Your task to perform on an android device: Open calendar and show me the second week of next month Image 0: 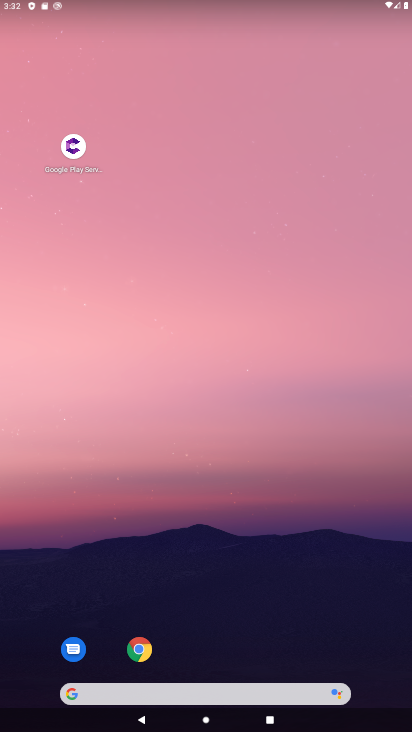
Step 0: drag from (376, 630) to (234, 3)
Your task to perform on an android device: Open calendar and show me the second week of next month Image 1: 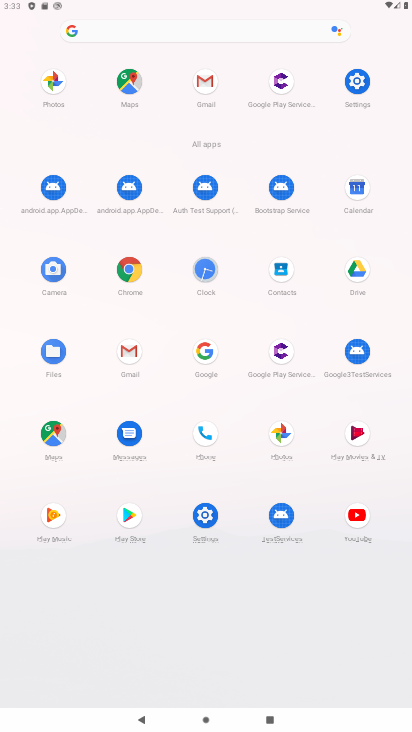
Step 1: click (362, 183)
Your task to perform on an android device: Open calendar and show me the second week of next month Image 2: 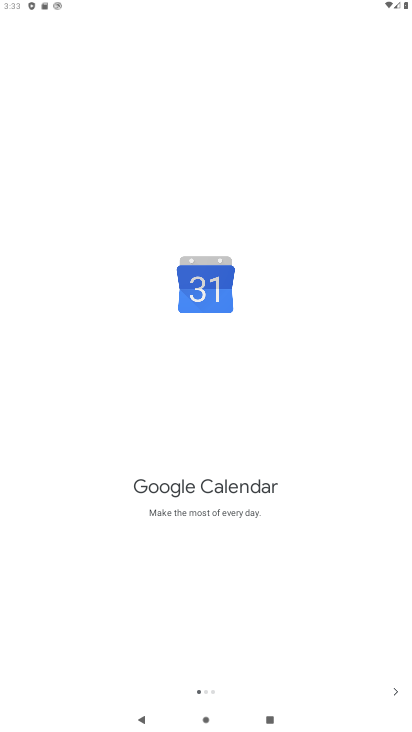
Step 2: click (396, 686)
Your task to perform on an android device: Open calendar and show me the second week of next month Image 3: 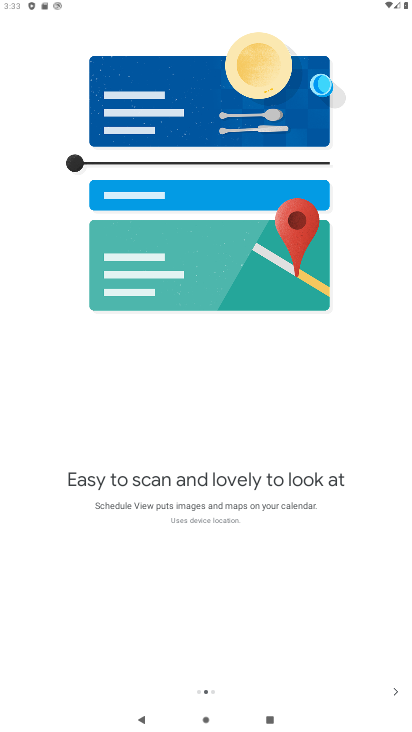
Step 3: click (396, 686)
Your task to perform on an android device: Open calendar and show me the second week of next month Image 4: 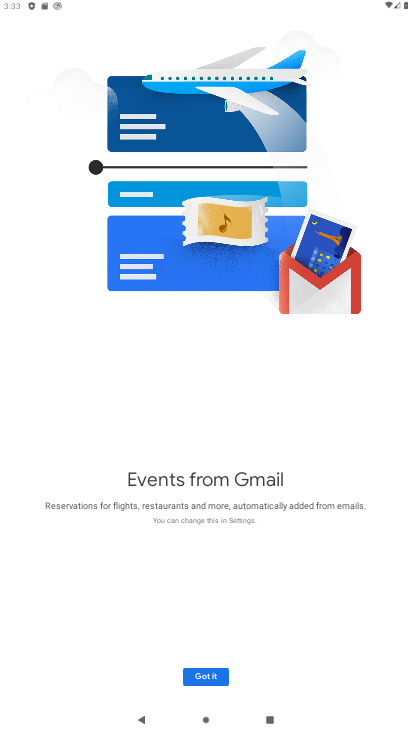
Step 4: click (213, 671)
Your task to perform on an android device: Open calendar and show me the second week of next month Image 5: 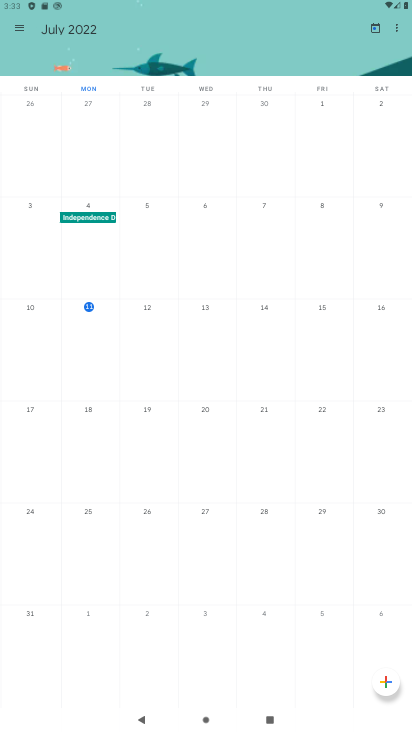
Step 5: click (28, 39)
Your task to perform on an android device: Open calendar and show me the second week of next month Image 6: 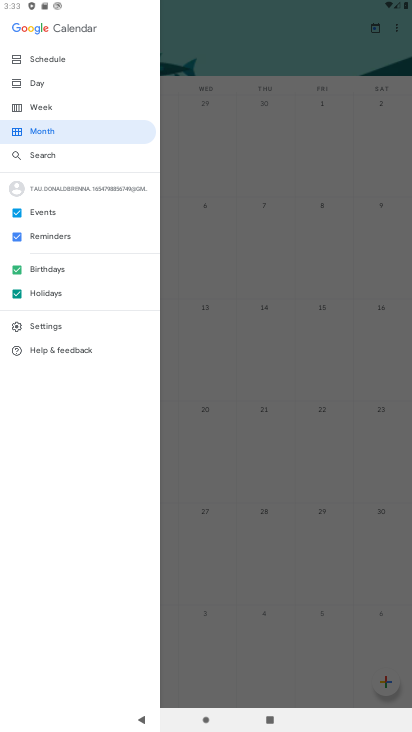
Step 6: click (72, 109)
Your task to perform on an android device: Open calendar and show me the second week of next month Image 7: 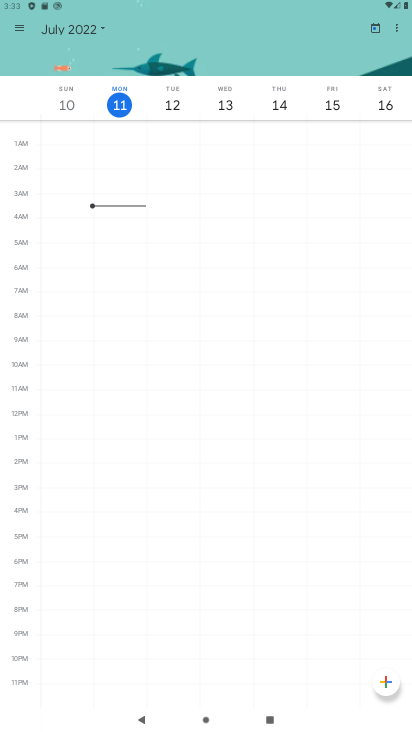
Step 7: click (99, 25)
Your task to perform on an android device: Open calendar and show me the second week of next month Image 8: 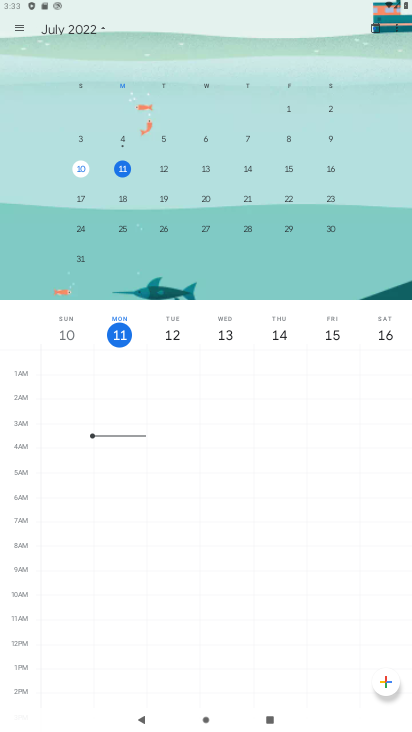
Step 8: drag from (288, 200) to (26, 199)
Your task to perform on an android device: Open calendar and show me the second week of next month Image 9: 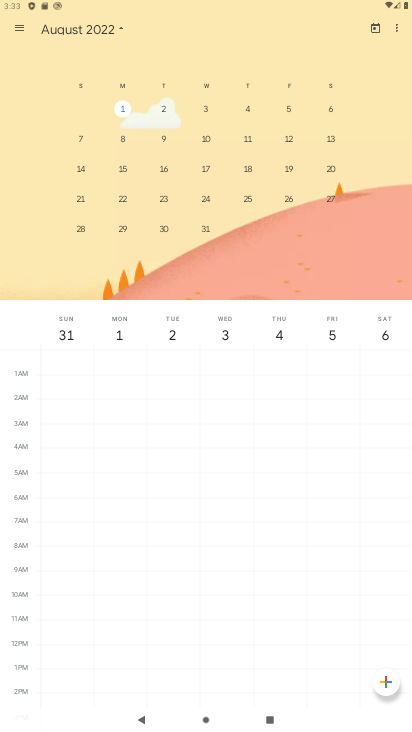
Step 9: click (78, 134)
Your task to perform on an android device: Open calendar and show me the second week of next month Image 10: 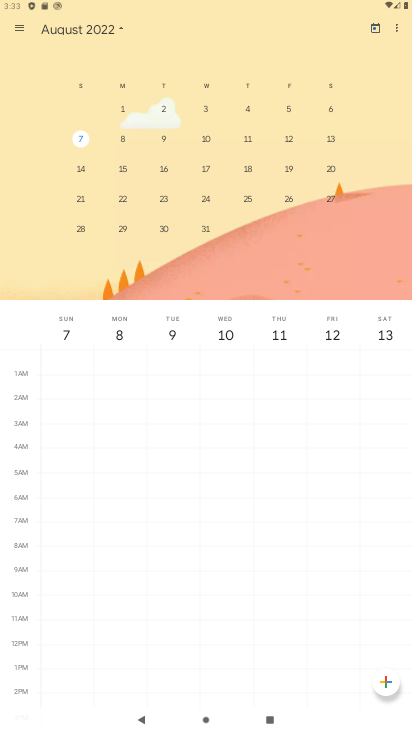
Step 10: task complete